Your task to perform on an android device: Search for Mexican restaurants on Maps Image 0: 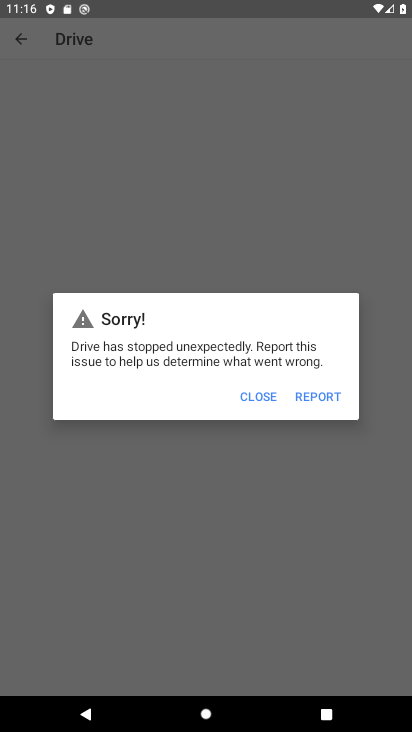
Step 0: press home button
Your task to perform on an android device: Search for Mexican restaurants on Maps Image 1: 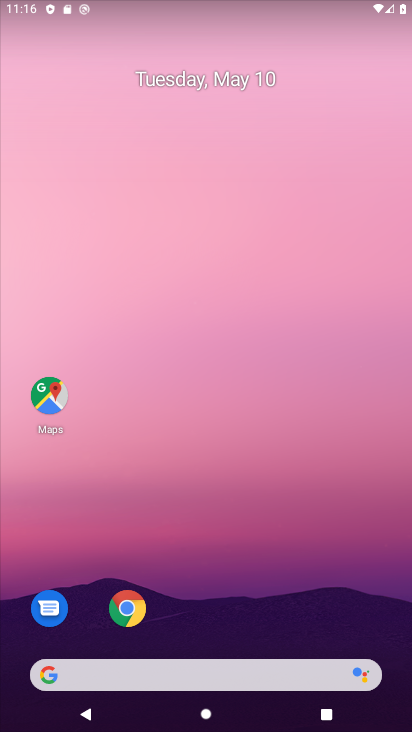
Step 1: click (47, 394)
Your task to perform on an android device: Search for Mexican restaurants on Maps Image 2: 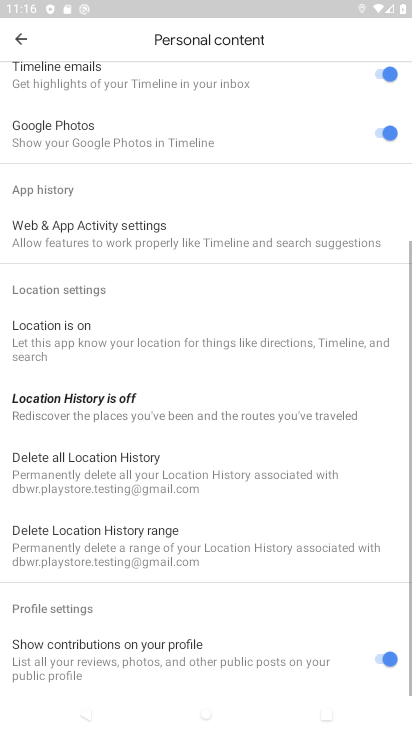
Step 2: click (23, 32)
Your task to perform on an android device: Search for Mexican restaurants on Maps Image 3: 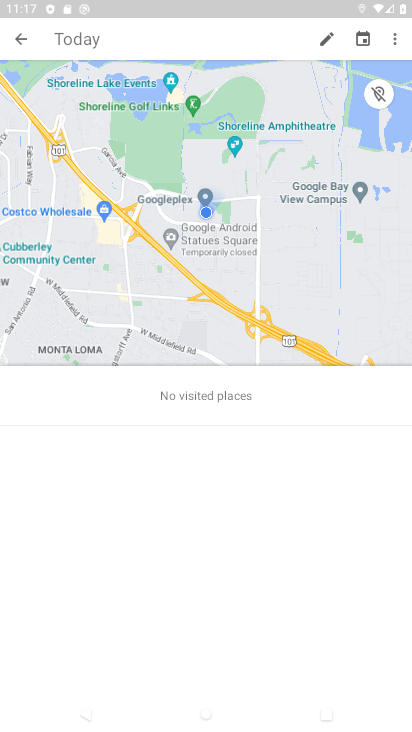
Step 3: click (17, 30)
Your task to perform on an android device: Search for Mexican restaurants on Maps Image 4: 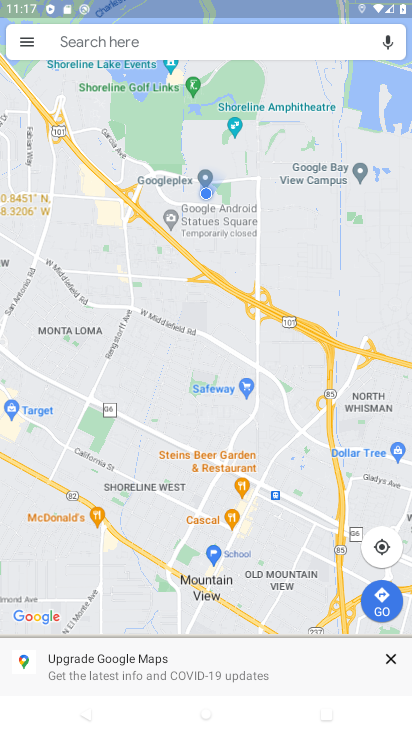
Step 4: click (148, 38)
Your task to perform on an android device: Search for Mexican restaurants on Maps Image 5: 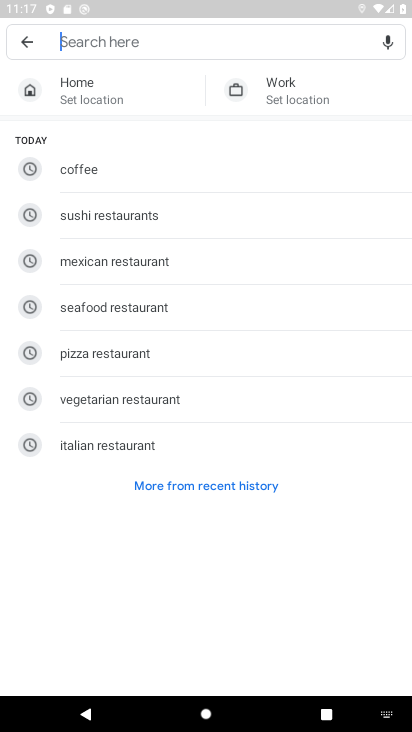
Step 5: click (135, 251)
Your task to perform on an android device: Search for Mexican restaurants on Maps Image 6: 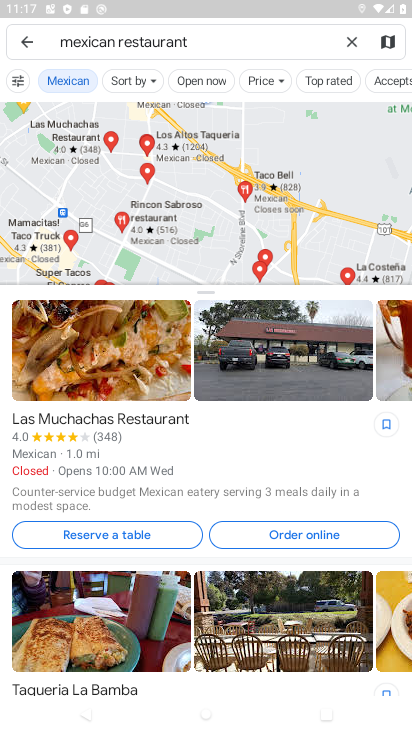
Step 6: task complete